Your task to perform on an android device: turn off wifi Image 0: 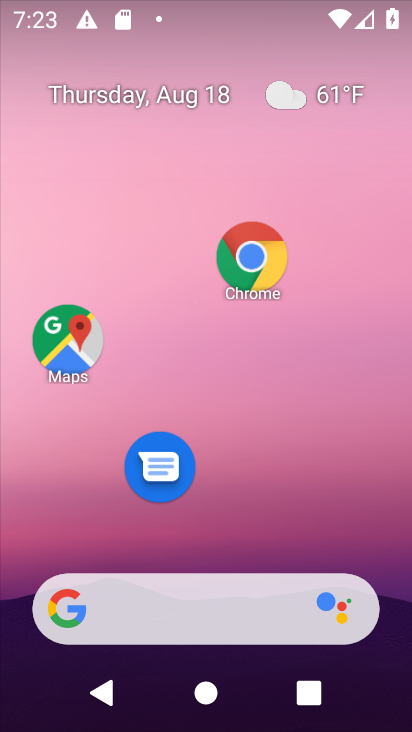
Step 0: drag from (257, 501) to (305, 135)
Your task to perform on an android device: turn off wifi Image 1: 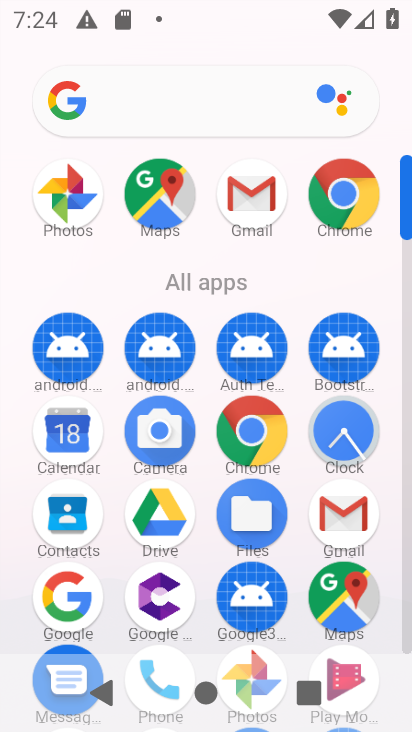
Step 1: task complete